Your task to perform on an android device: open wifi settings Image 0: 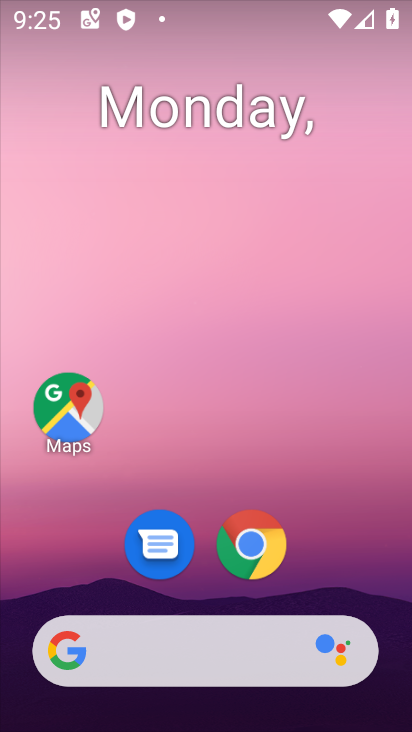
Step 0: drag from (358, 536) to (272, 115)
Your task to perform on an android device: open wifi settings Image 1: 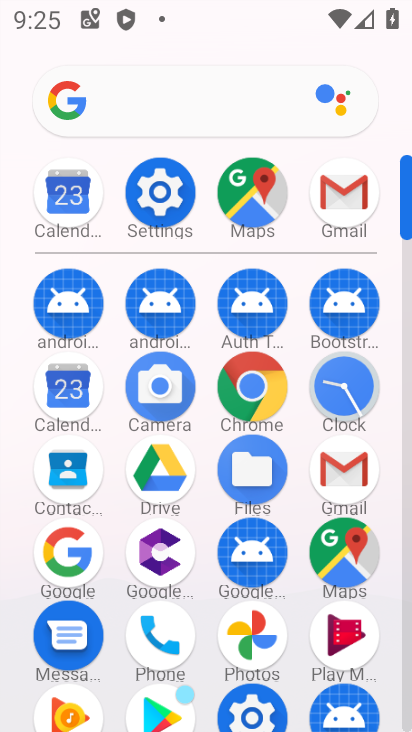
Step 1: click (161, 171)
Your task to perform on an android device: open wifi settings Image 2: 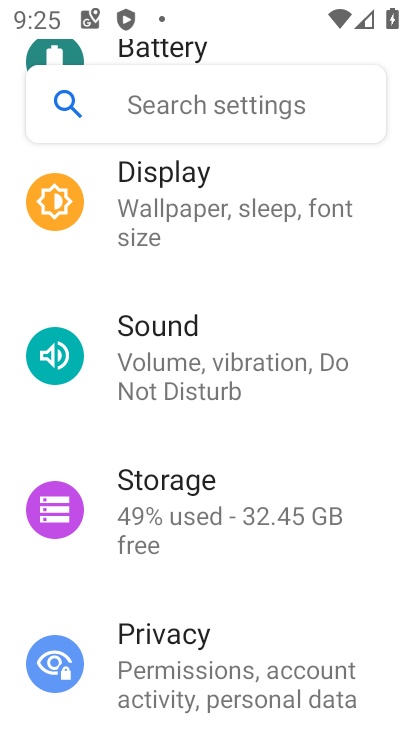
Step 2: drag from (269, 254) to (285, 728)
Your task to perform on an android device: open wifi settings Image 3: 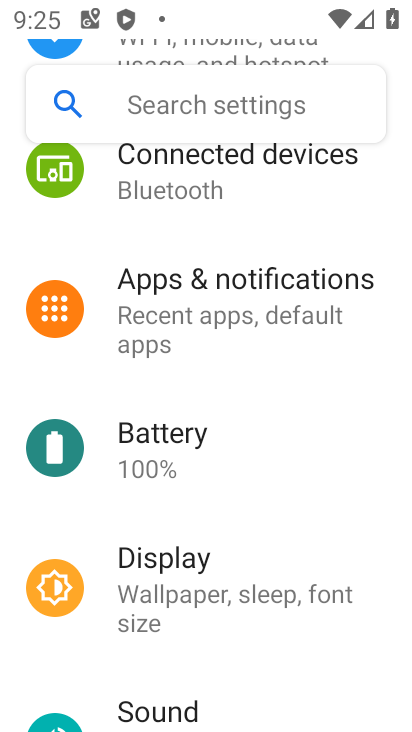
Step 3: drag from (227, 205) to (266, 700)
Your task to perform on an android device: open wifi settings Image 4: 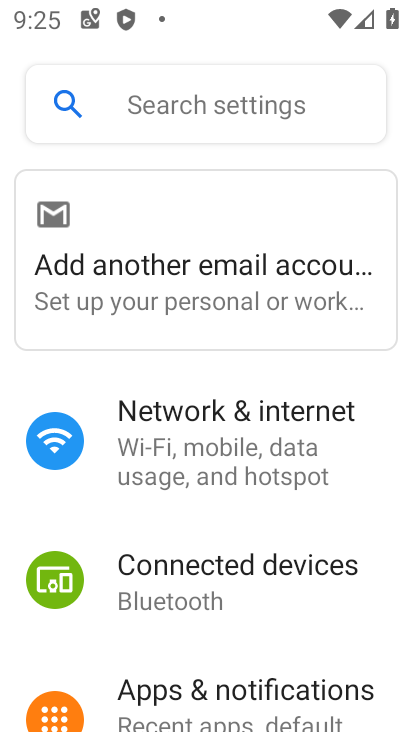
Step 4: click (213, 434)
Your task to perform on an android device: open wifi settings Image 5: 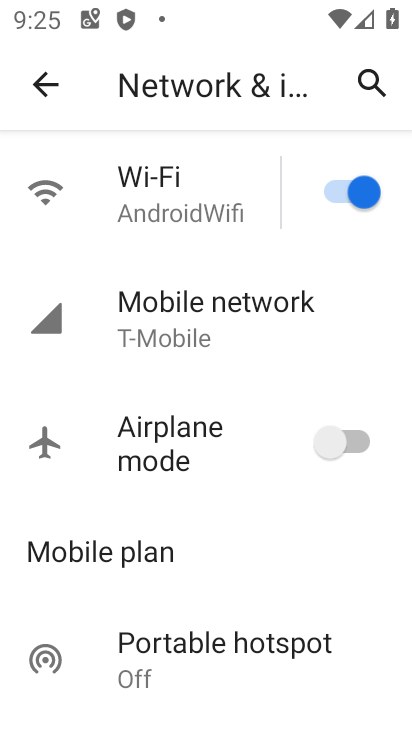
Step 5: click (127, 175)
Your task to perform on an android device: open wifi settings Image 6: 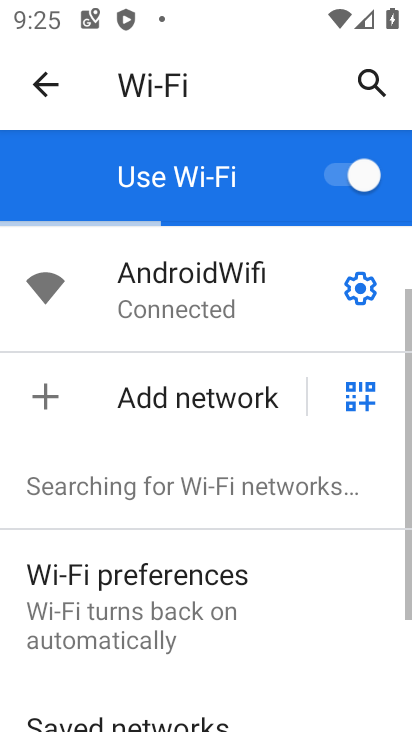
Step 6: task complete